Your task to perform on an android device: Open Google Maps and go to "Timeline" Image 0: 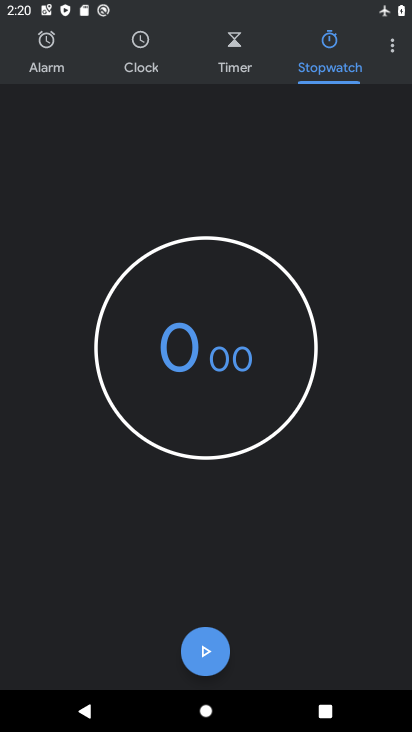
Step 0: press home button
Your task to perform on an android device: Open Google Maps and go to "Timeline" Image 1: 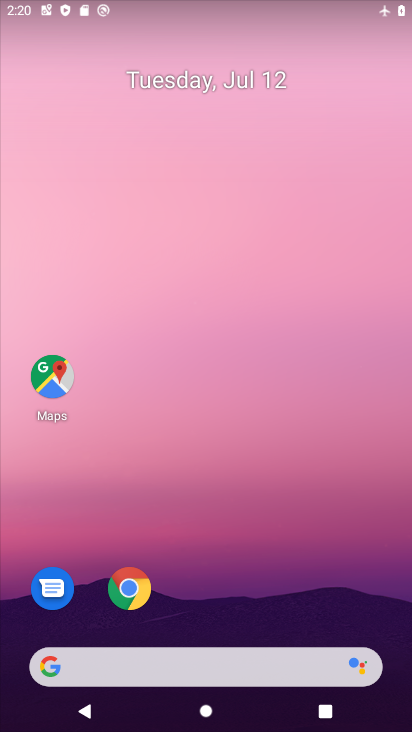
Step 1: click (50, 369)
Your task to perform on an android device: Open Google Maps and go to "Timeline" Image 2: 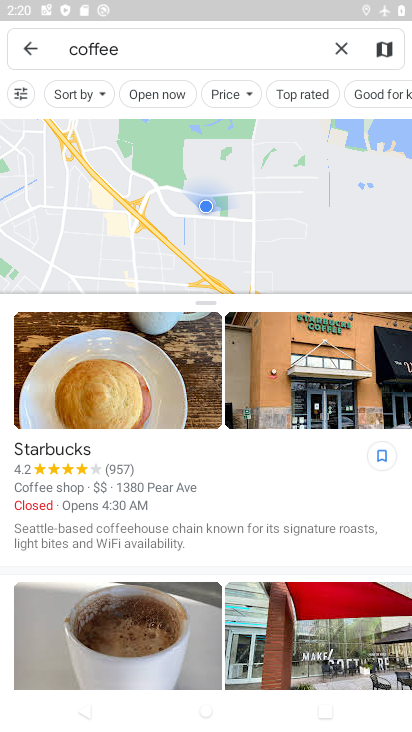
Step 2: click (35, 45)
Your task to perform on an android device: Open Google Maps and go to "Timeline" Image 3: 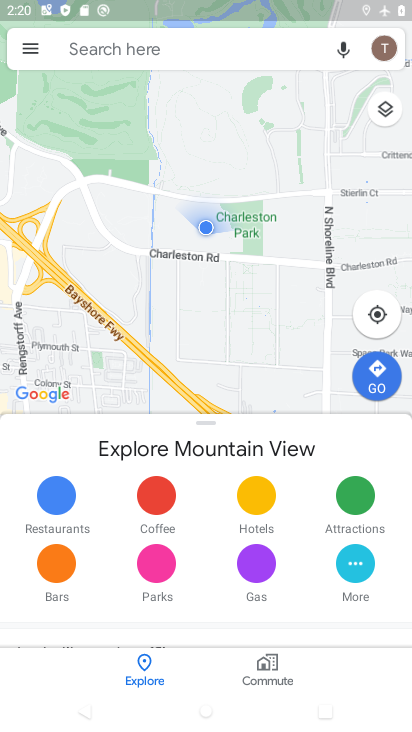
Step 3: click (35, 45)
Your task to perform on an android device: Open Google Maps and go to "Timeline" Image 4: 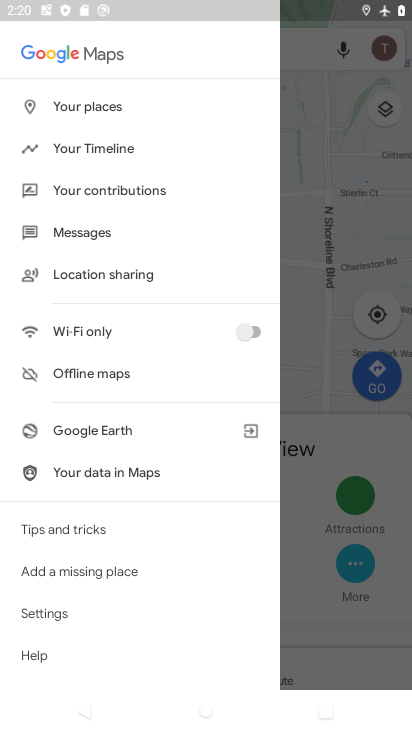
Step 4: click (108, 144)
Your task to perform on an android device: Open Google Maps and go to "Timeline" Image 5: 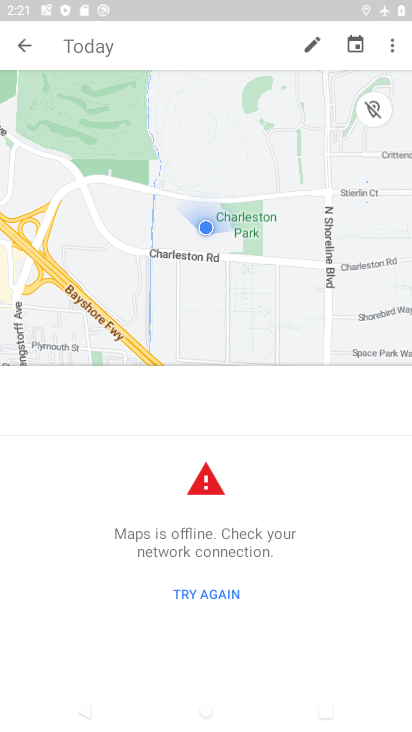
Step 5: task complete